Your task to perform on an android device: Search for lg ultragear on costco, select the first entry, and add it to the cart. Image 0: 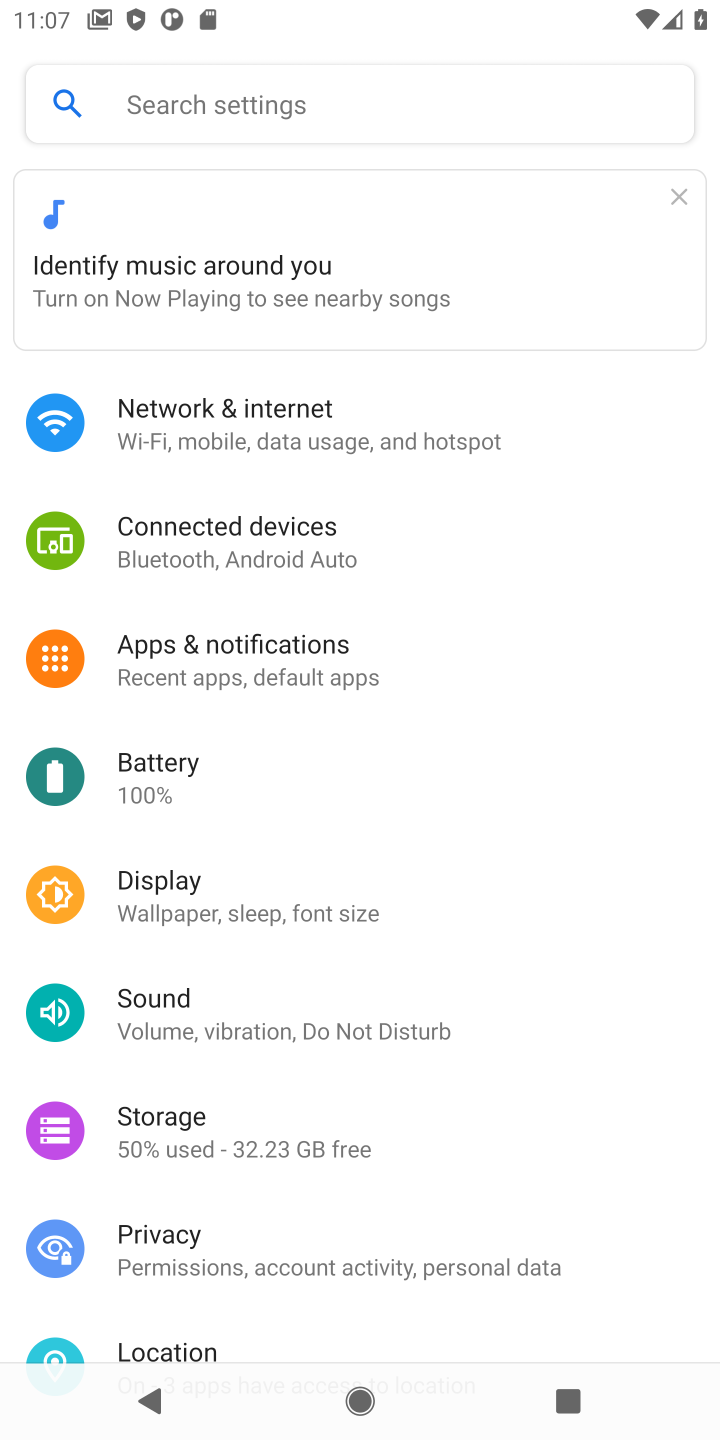
Step 0: press home button
Your task to perform on an android device: Search for lg ultragear on costco, select the first entry, and add it to the cart. Image 1: 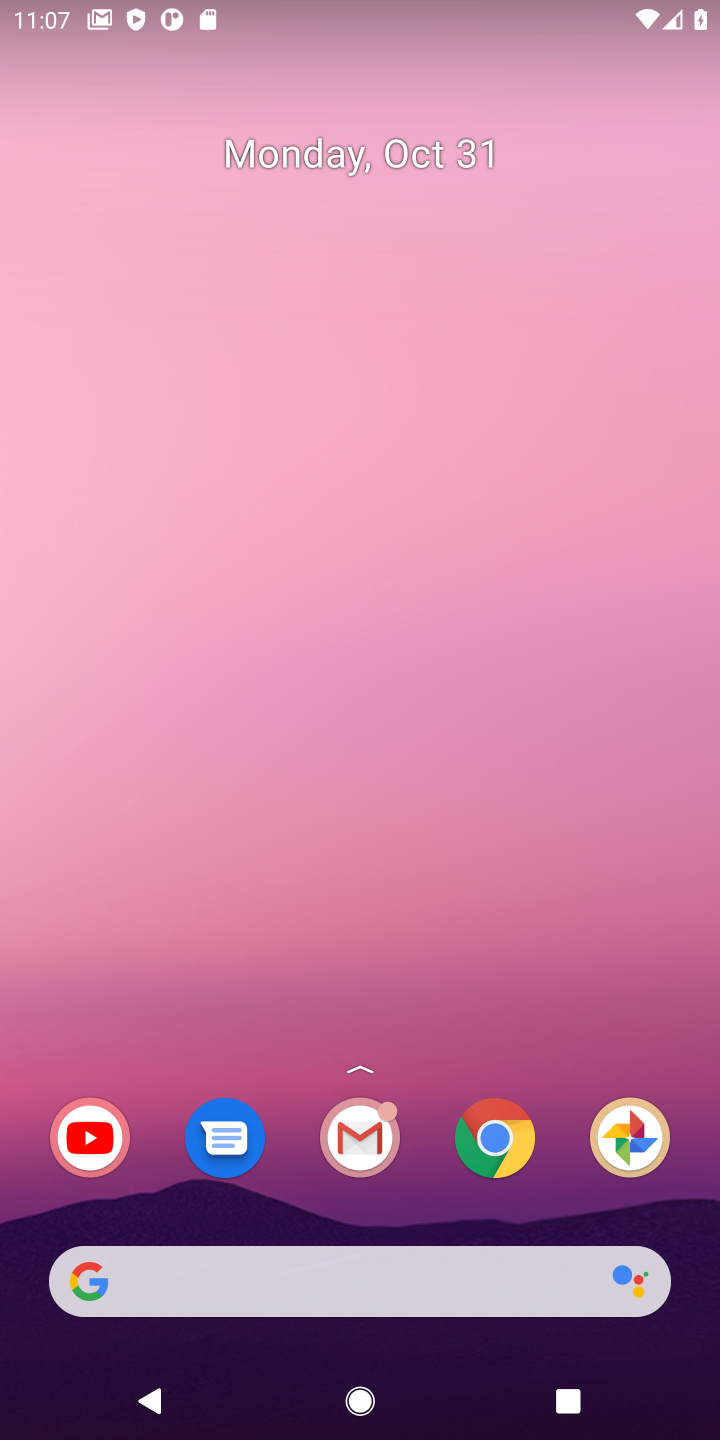
Step 1: click (508, 1167)
Your task to perform on an android device: Search for lg ultragear on costco, select the first entry, and add it to the cart. Image 2: 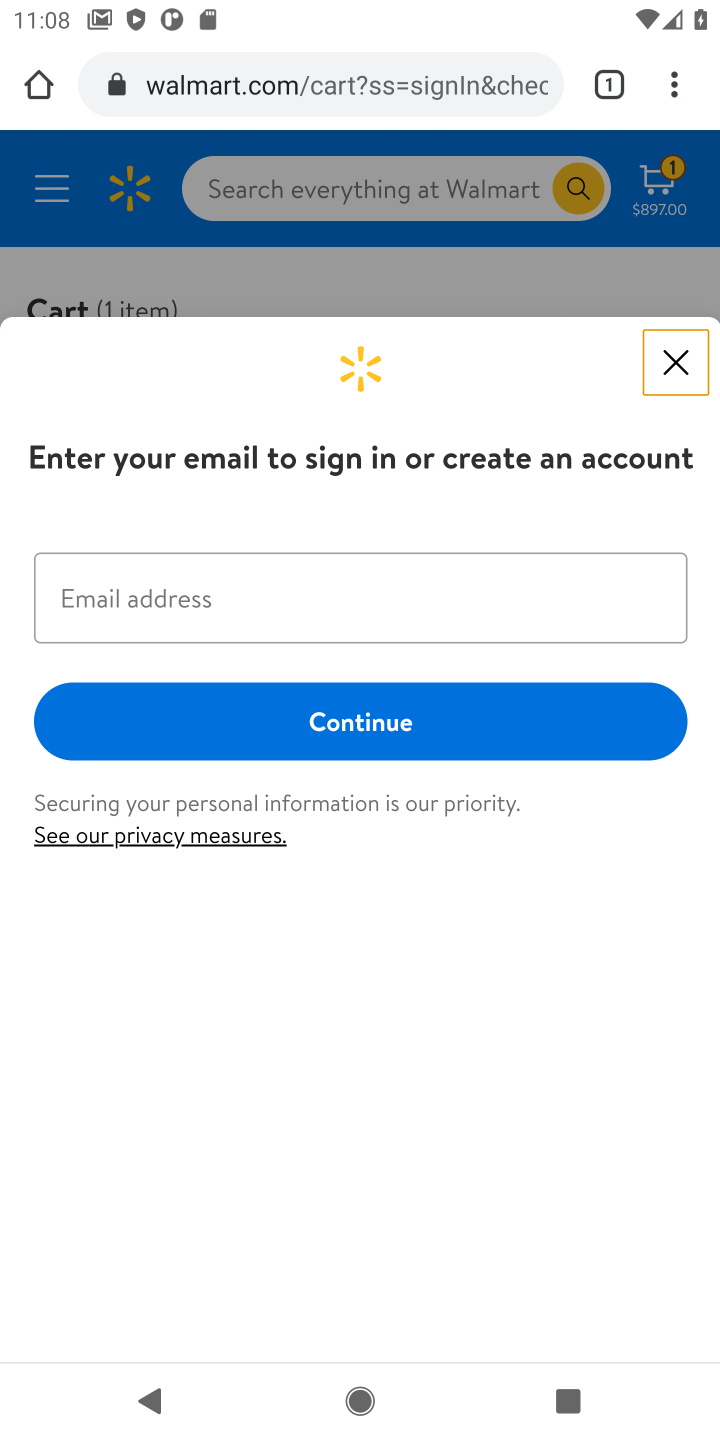
Step 2: click (276, 79)
Your task to perform on an android device: Search for lg ultragear on costco, select the first entry, and add it to the cart. Image 3: 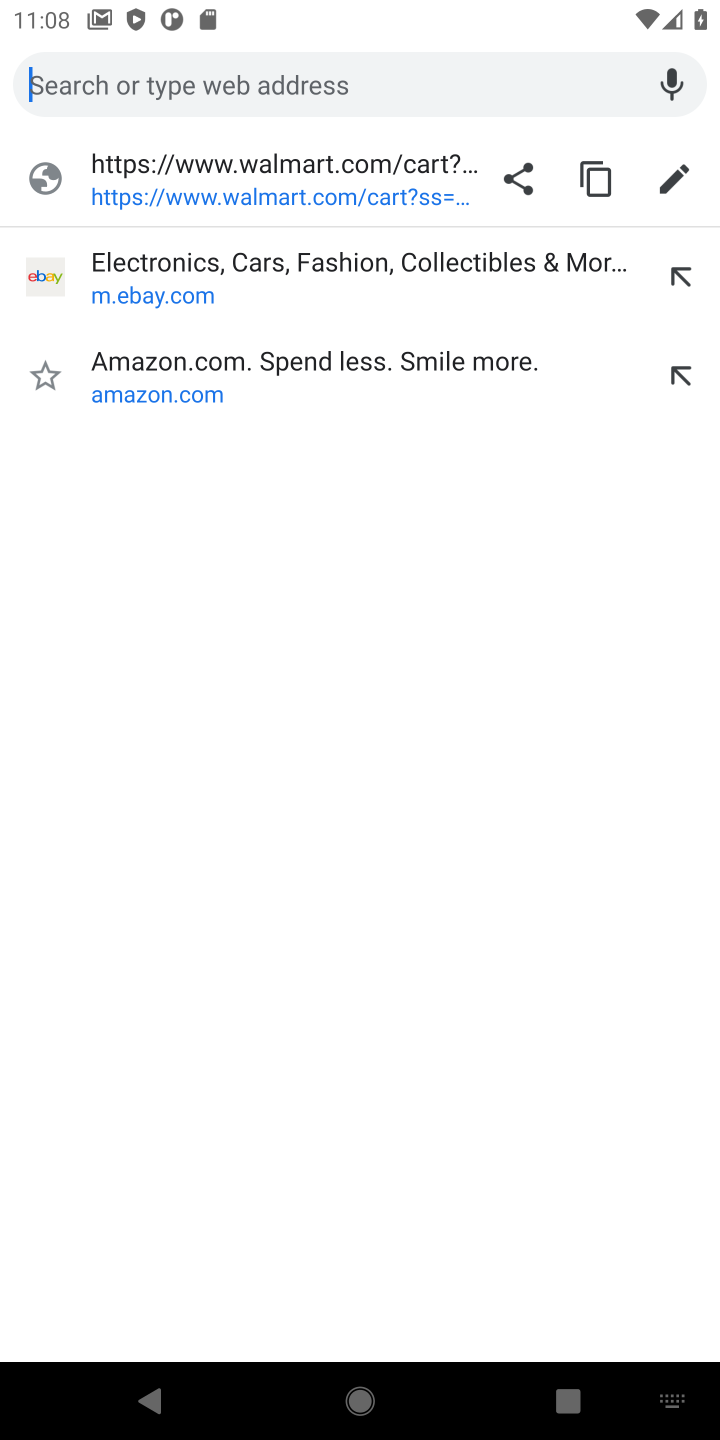
Step 3: type "costco"
Your task to perform on an android device: Search for lg ultragear on costco, select the first entry, and add it to the cart. Image 4: 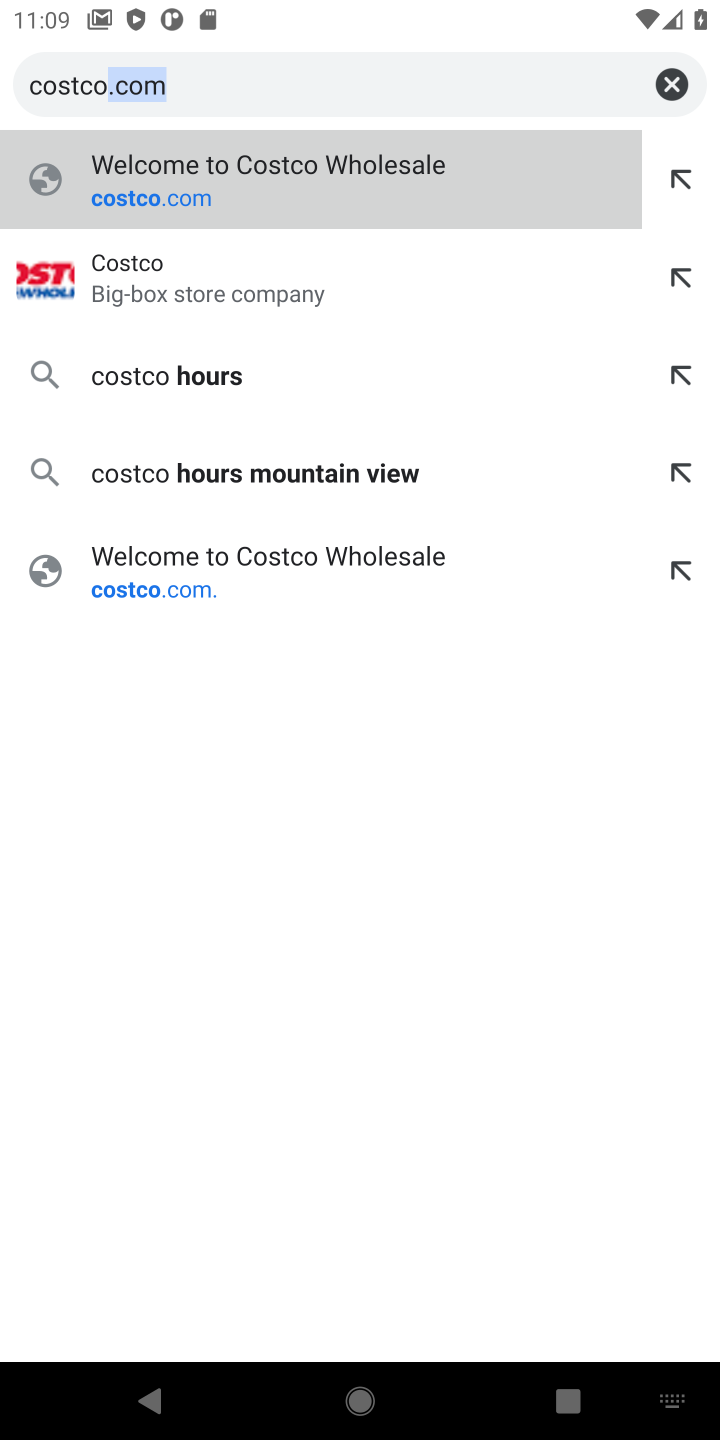
Step 4: click (267, 151)
Your task to perform on an android device: Search for lg ultragear on costco, select the first entry, and add it to the cart. Image 5: 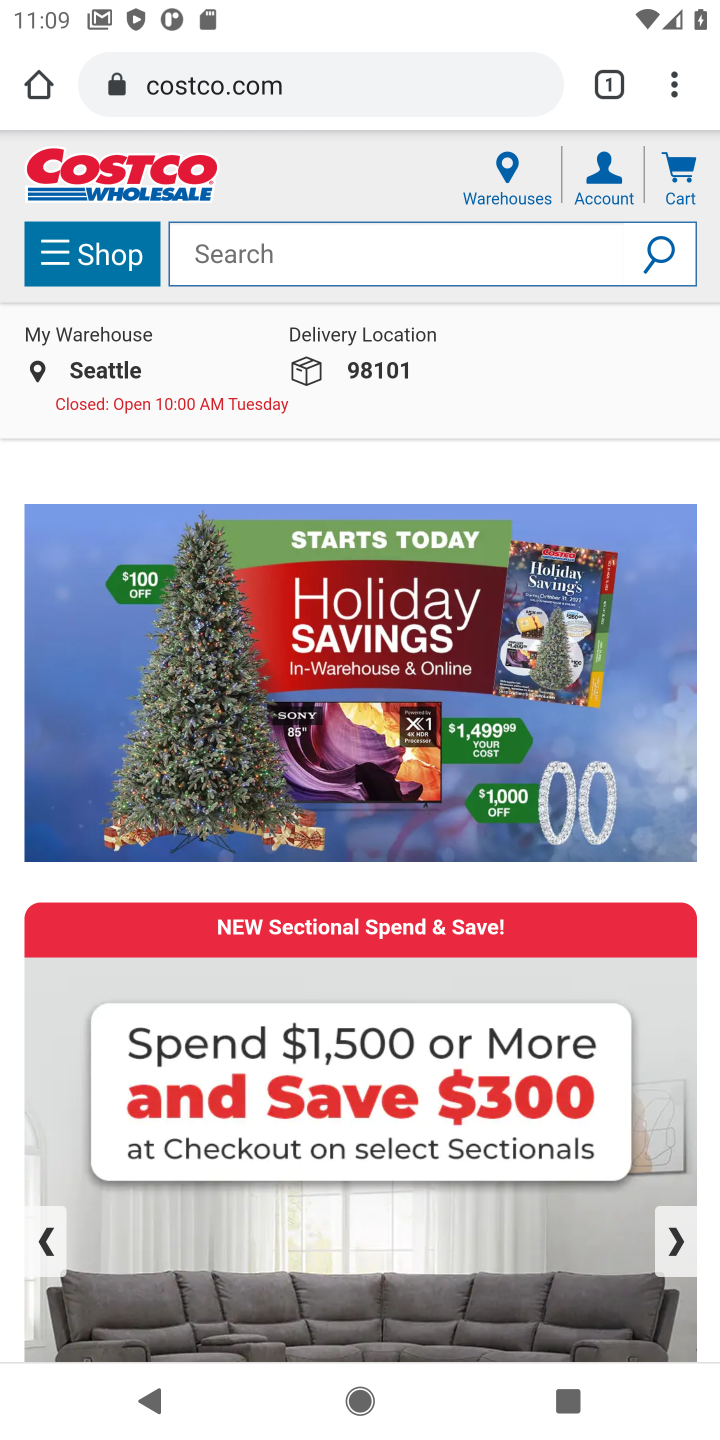
Step 5: click (345, 258)
Your task to perform on an android device: Search for lg ultragear on costco, select the first entry, and add it to the cart. Image 6: 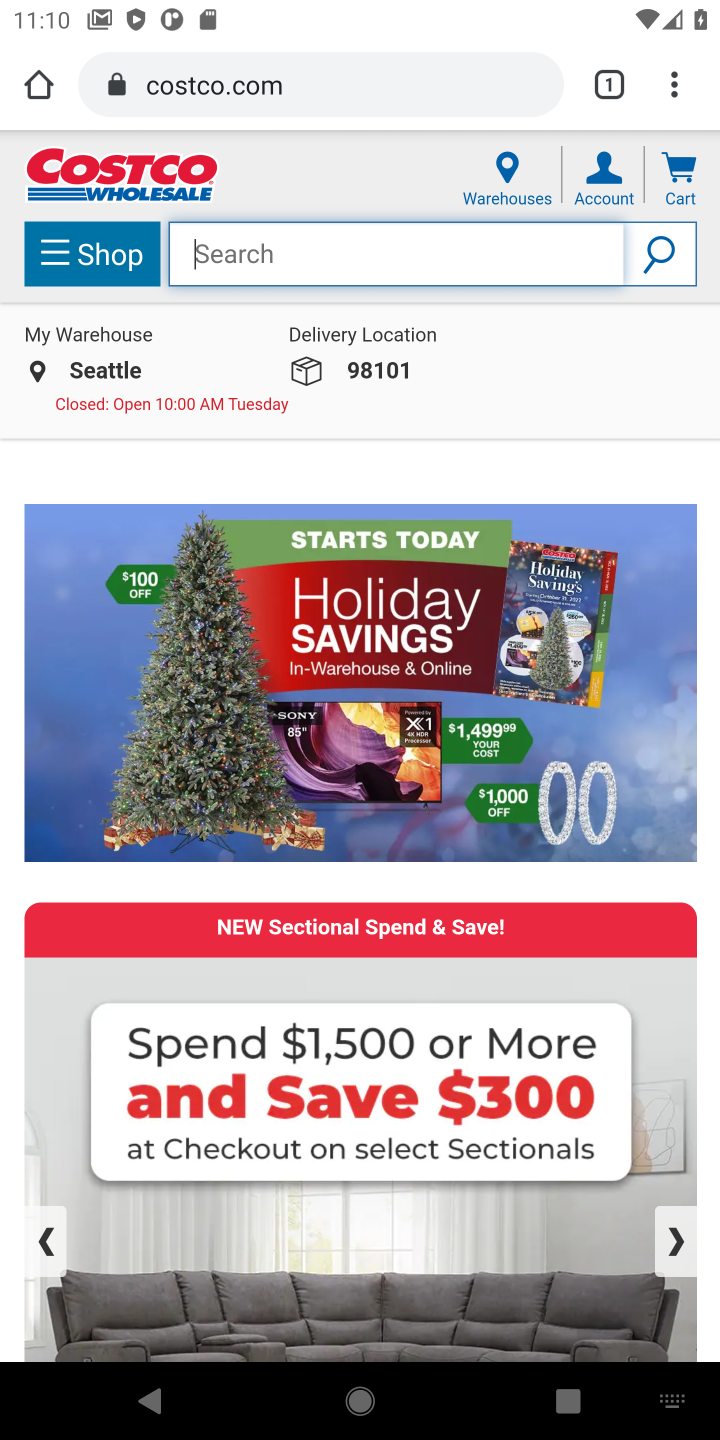
Step 6: type "Ig ultragear"
Your task to perform on an android device: Search for lg ultragear on costco, select the first entry, and add it to the cart. Image 7: 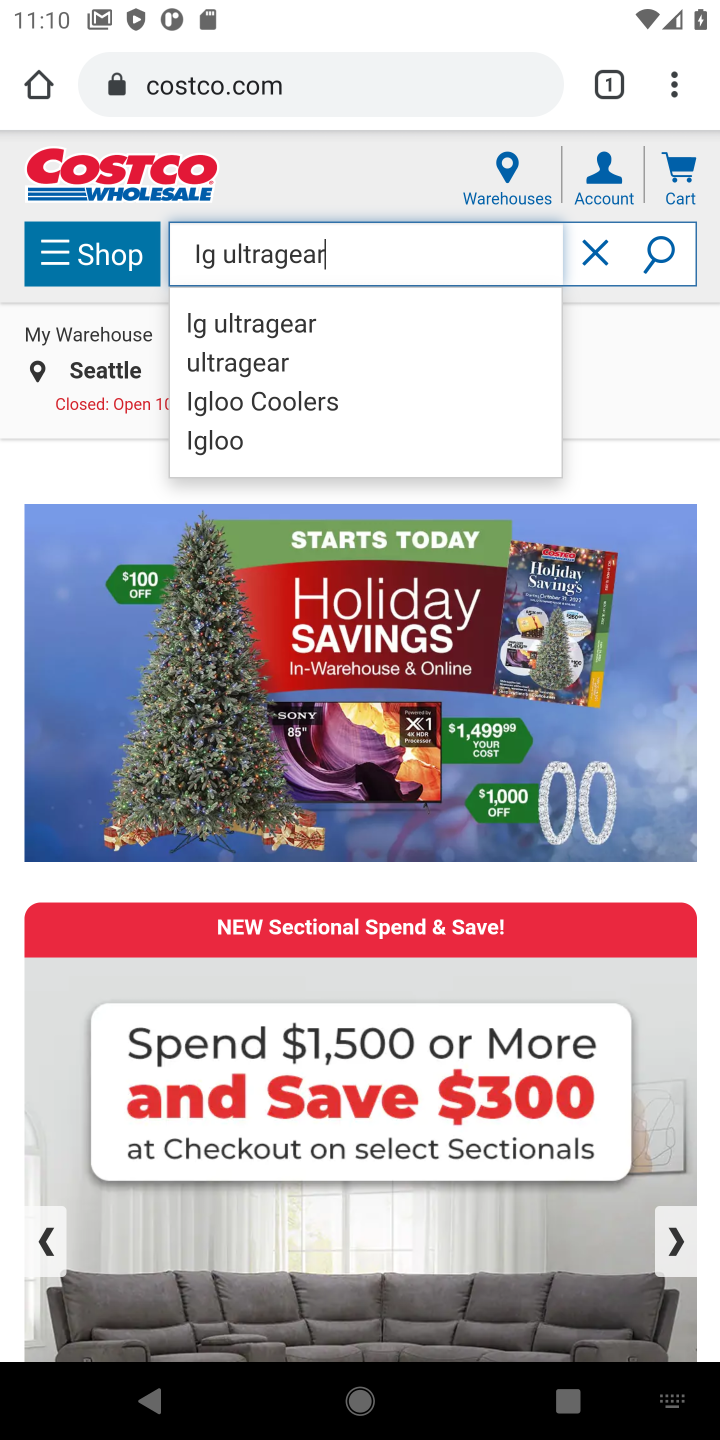
Step 7: click (656, 238)
Your task to perform on an android device: Search for lg ultragear on costco, select the first entry, and add it to the cart. Image 8: 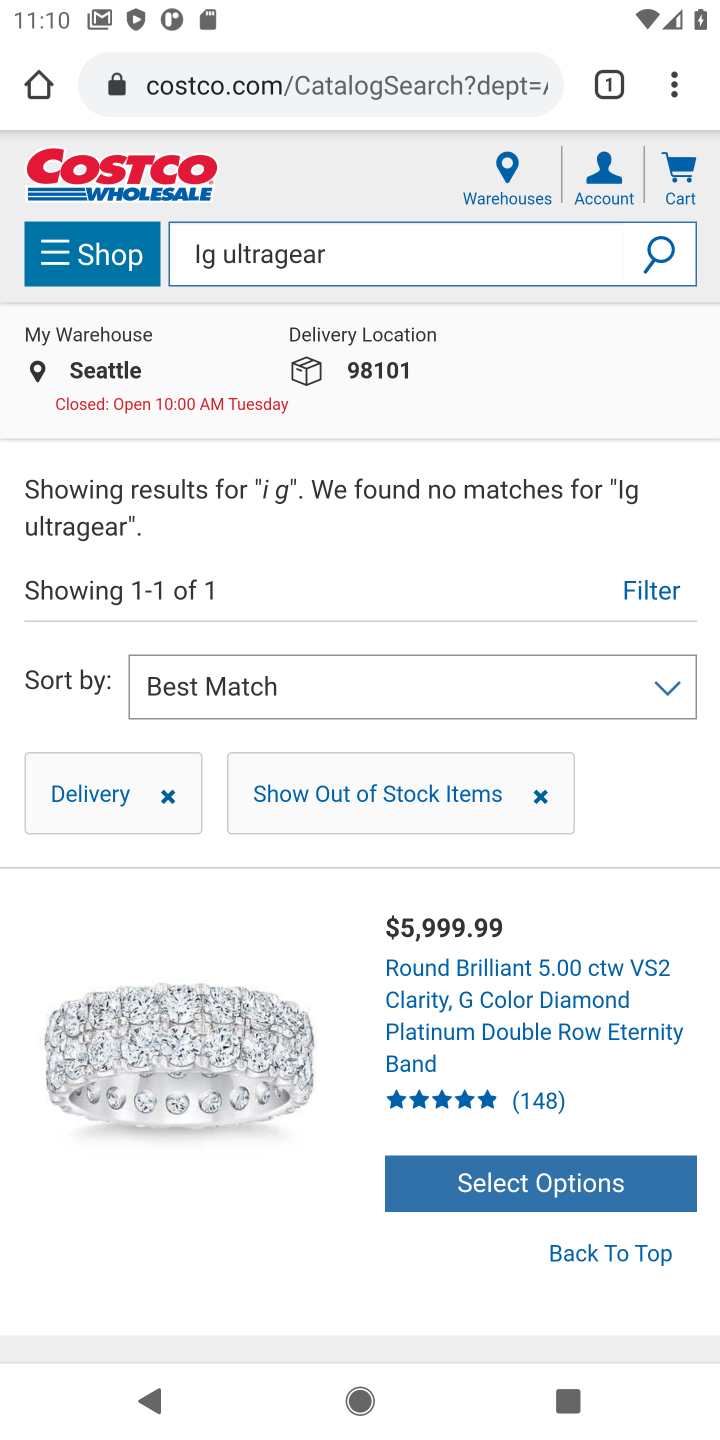
Step 8: task complete